Your task to perform on an android device: Go to settings Image 0: 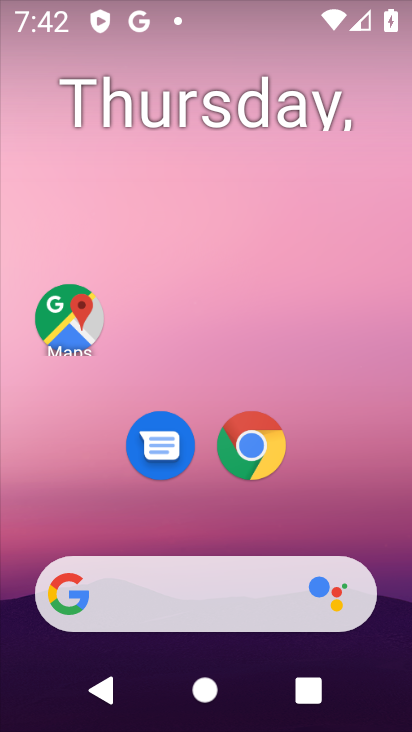
Step 0: drag from (365, 505) to (363, 156)
Your task to perform on an android device: Go to settings Image 1: 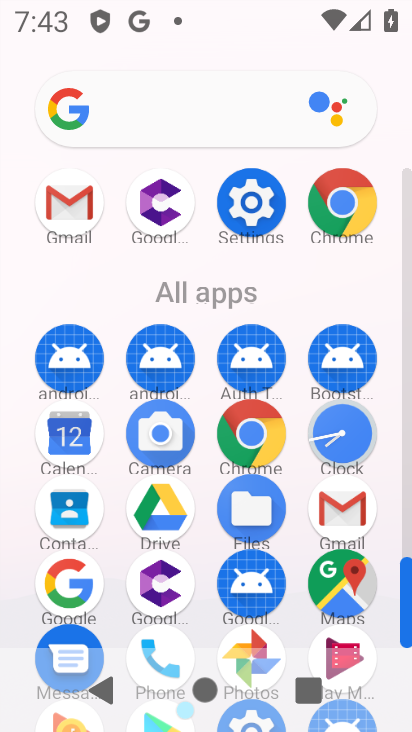
Step 1: click (243, 198)
Your task to perform on an android device: Go to settings Image 2: 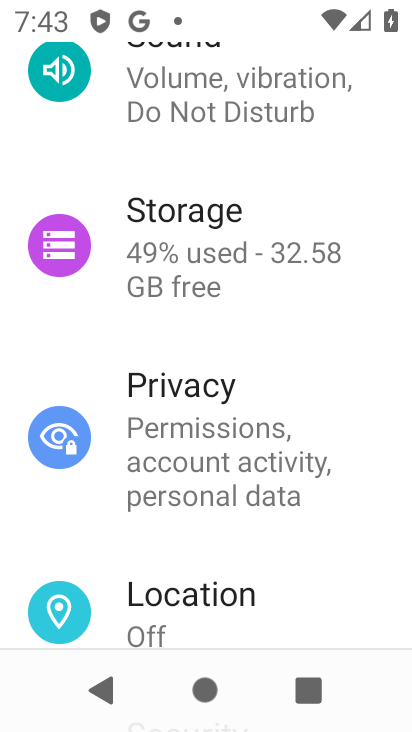
Step 2: task complete